Your task to perform on an android device: Go to sound settings Image 0: 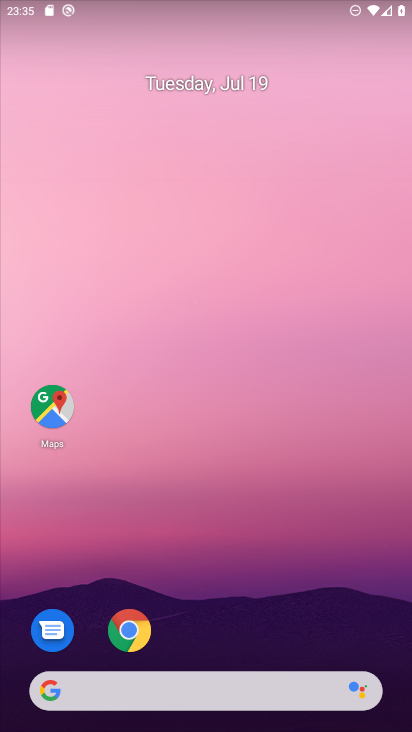
Step 0: drag from (262, 618) to (247, 131)
Your task to perform on an android device: Go to sound settings Image 1: 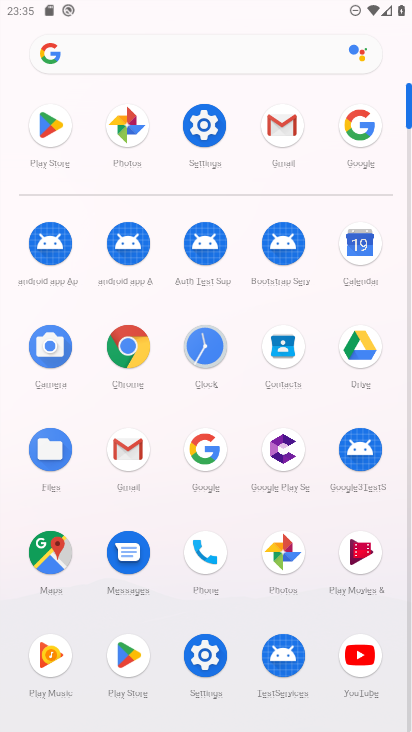
Step 1: click (207, 136)
Your task to perform on an android device: Go to sound settings Image 2: 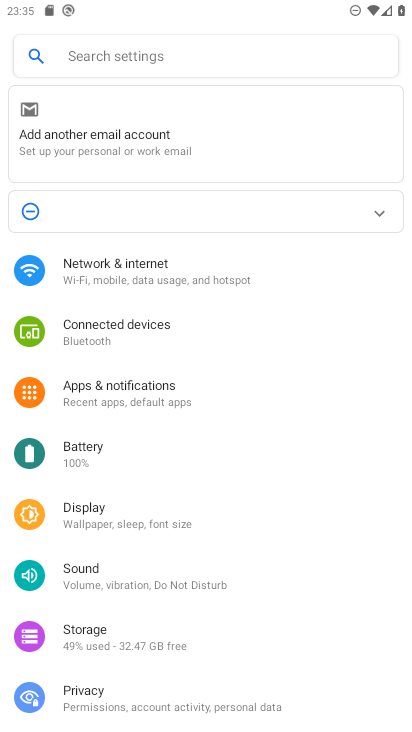
Step 2: drag from (139, 621) to (186, 228)
Your task to perform on an android device: Go to sound settings Image 3: 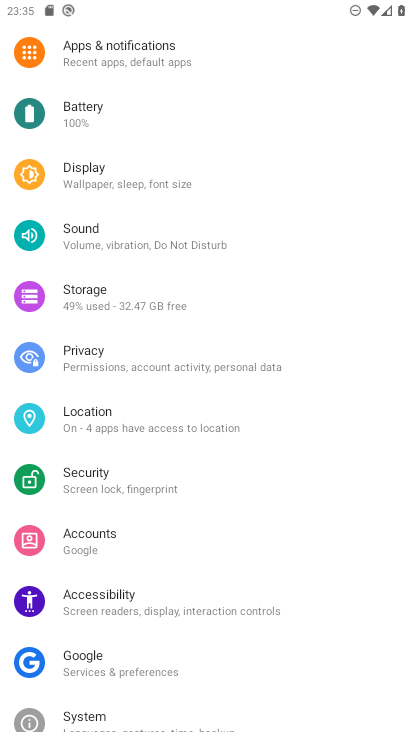
Step 3: click (142, 247)
Your task to perform on an android device: Go to sound settings Image 4: 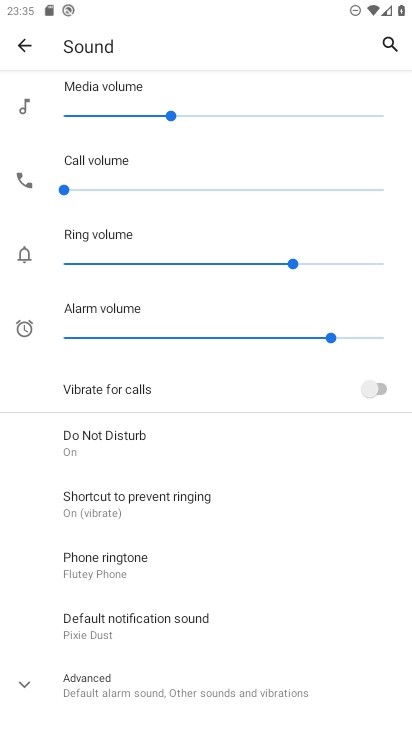
Step 4: task complete